Your task to perform on an android device: toggle pop-ups in chrome Image 0: 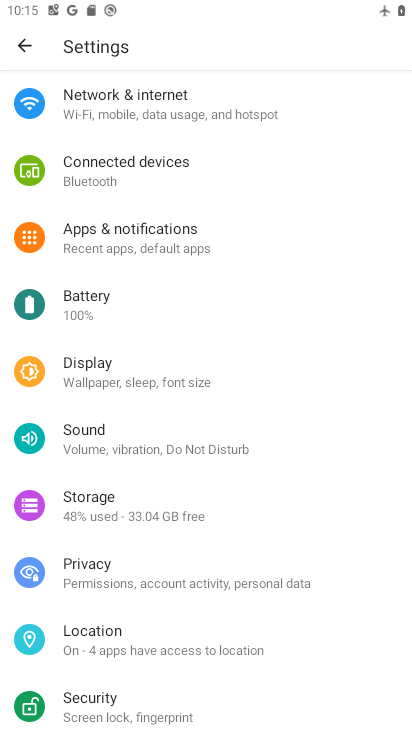
Step 0: press home button
Your task to perform on an android device: toggle pop-ups in chrome Image 1: 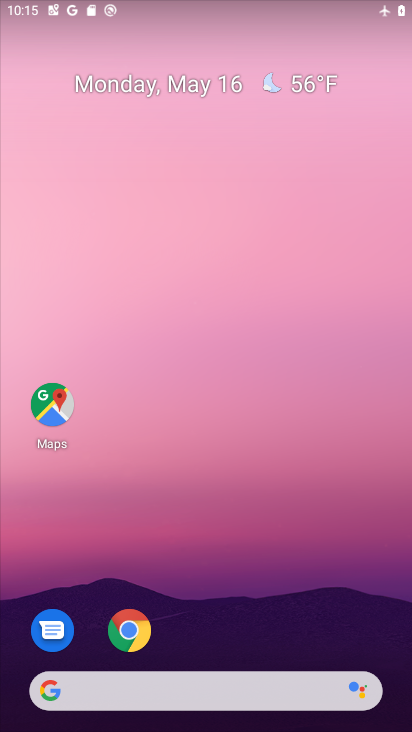
Step 1: click (132, 629)
Your task to perform on an android device: toggle pop-ups in chrome Image 2: 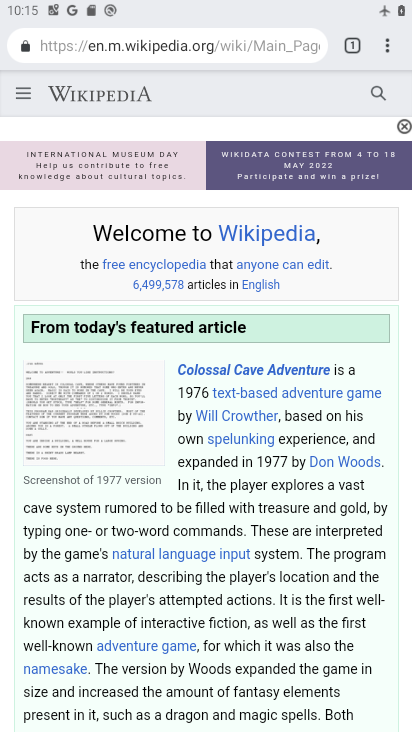
Step 2: click (387, 45)
Your task to perform on an android device: toggle pop-ups in chrome Image 3: 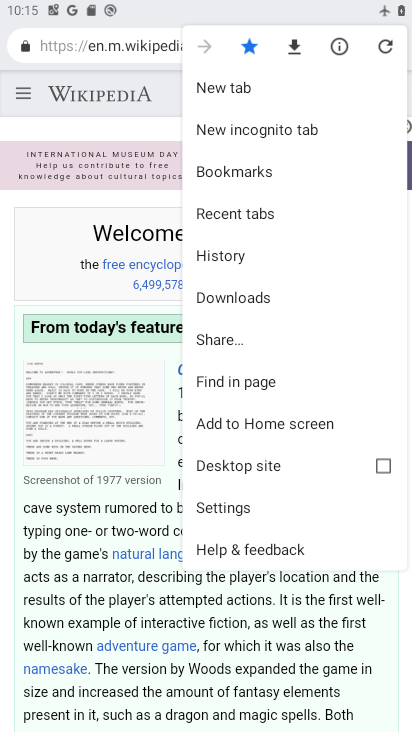
Step 3: click (237, 500)
Your task to perform on an android device: toggle pop-ups in chrome Image 4: 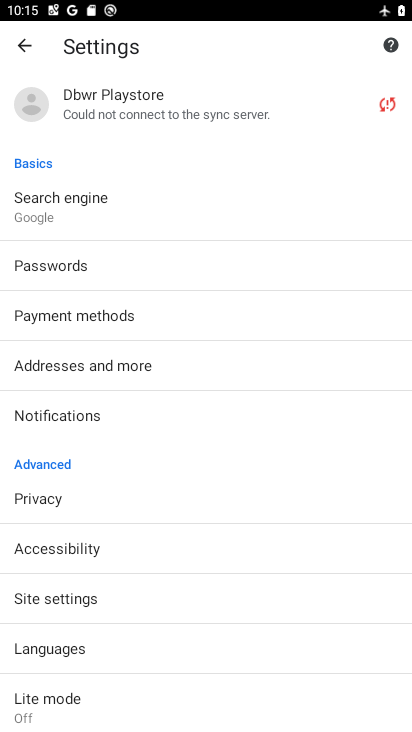
Step 4: click (161, 590)
Your task to perform on an android device: toggle pop-ups in chrome Image 5: 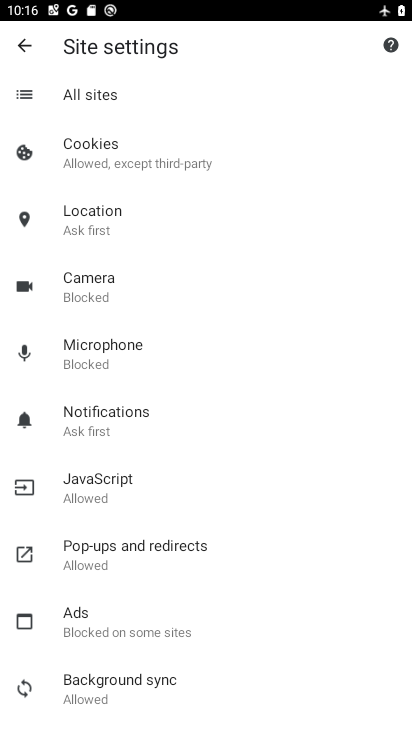
Step 5: click (223, 558)
Your task to perform on an android device: toggle pop-ups in chrome Image 6: 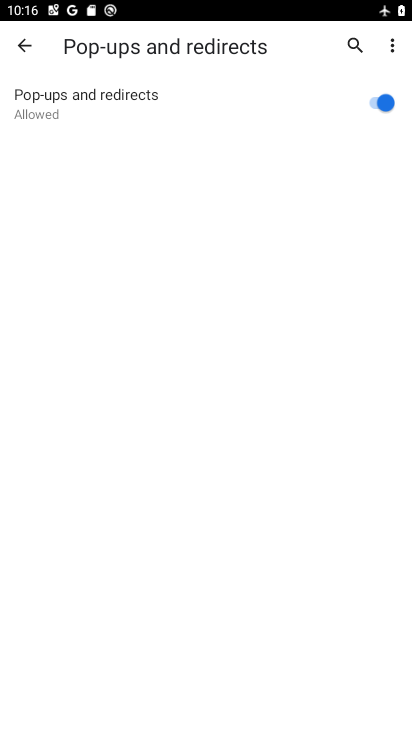
Step 6: click (377, 92)
Your task to perform on an android device: toggle pop-ups in chrome Image 7: 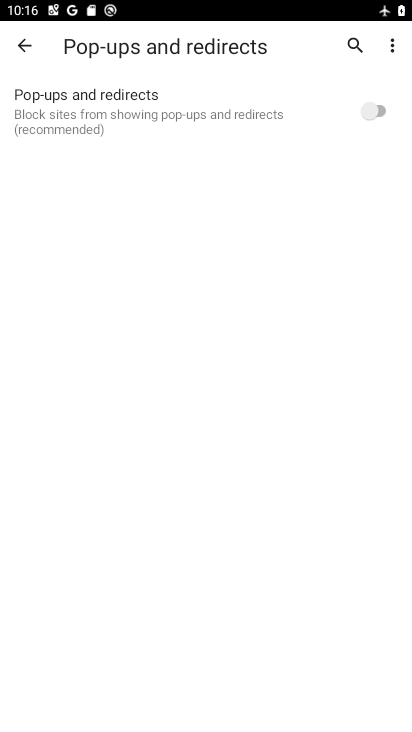
Step 7: task complete